Your task to perform on an android device: set default search engine in the chrome app Image 0: 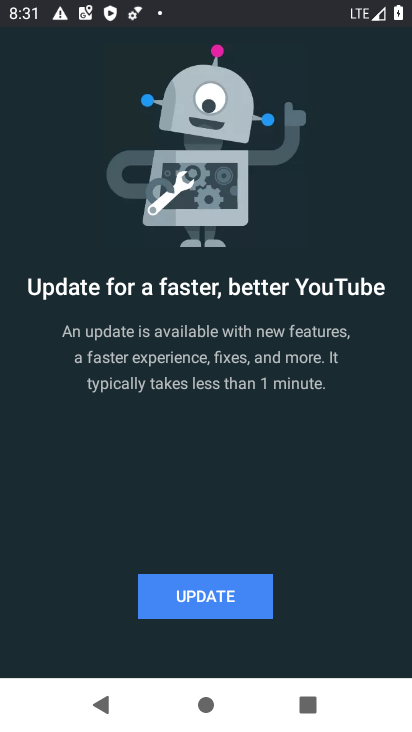
Step 0: press home button
Your task to perform on an android device: set default search engine in the chrome app Image 1: 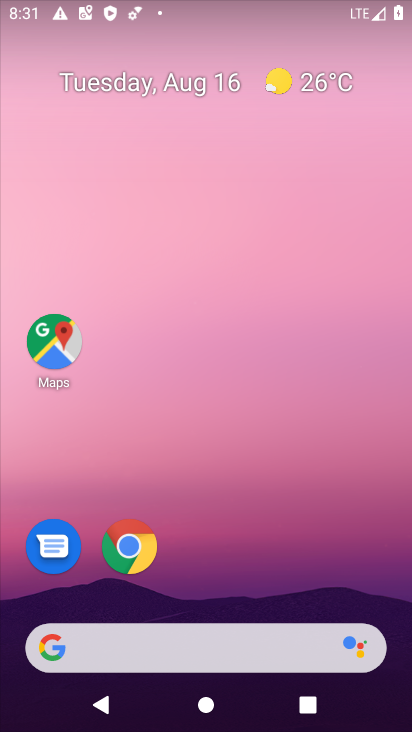
Step 1: click (126, 541)
Your task to perform on an android device: set default search engine in the chrome app Image 2: 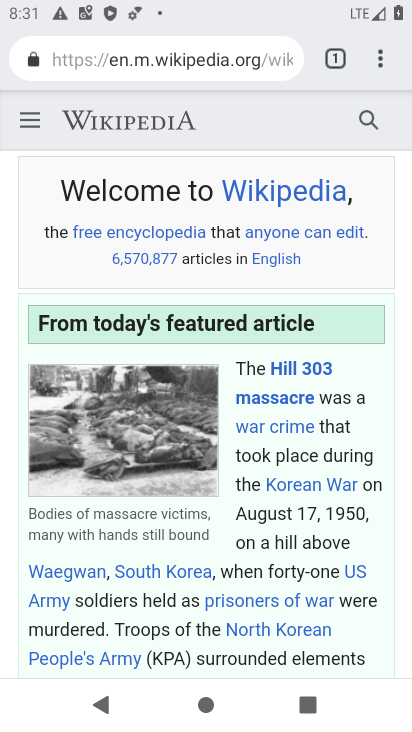
Step 2: click (377, 65)
Your task to perform on an android device: set default search engine in the chrome app Image 3: 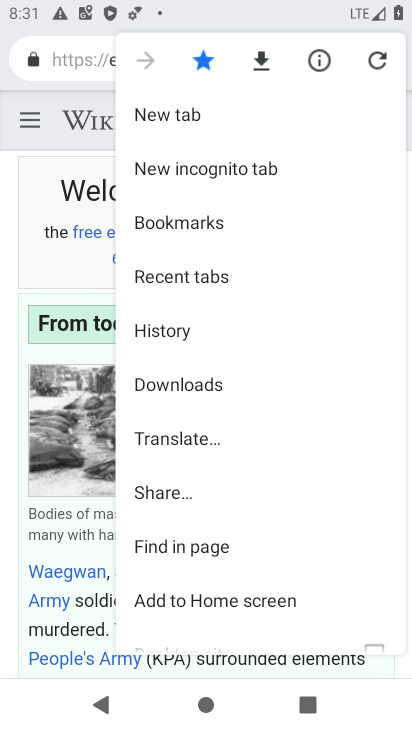
Step 3: drag from (216, 538) to (299, 112)
Your task to perform on an android device: set default search engine in the chrome app Image 4: 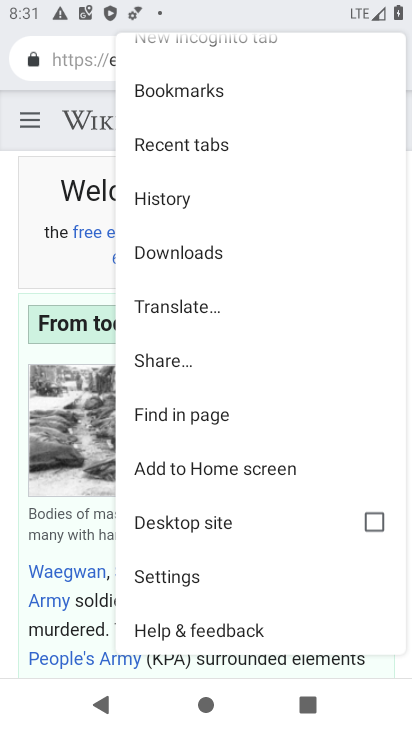
Step 4: click (195, 579)
Your task to perform on an android device: set default search engine in the chrome app Image 5: 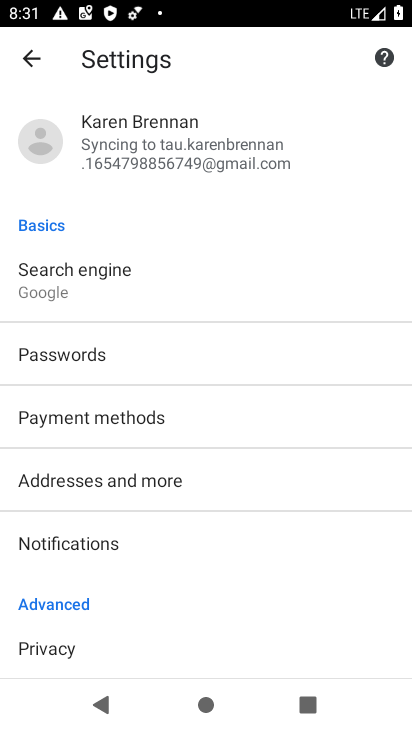
Step 5: click (113, 280)
Your task to perform on an android device: set default search engine in the chrome app Image 6: 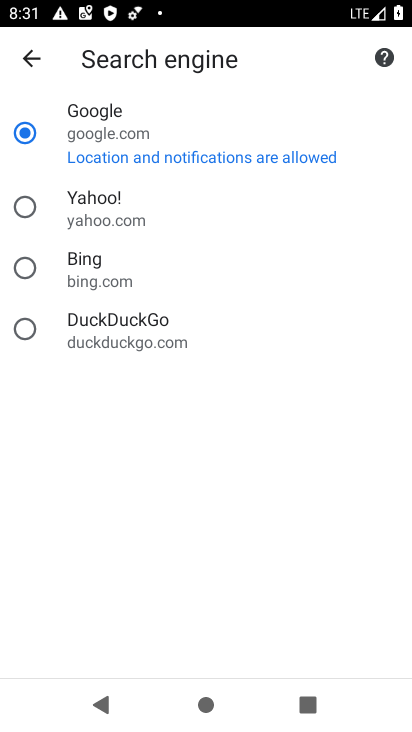
Step 6: task complete